Your task to perform on an android device: Open Google Image 0: 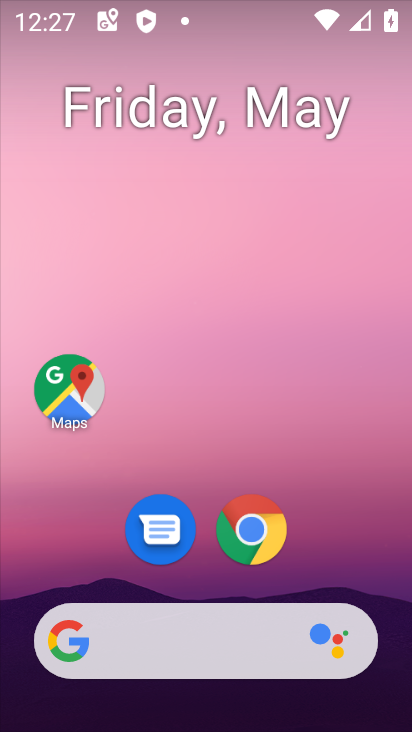
Step 0: click (211, 632)
Your task to perform on an android device: Open Google Image 1: 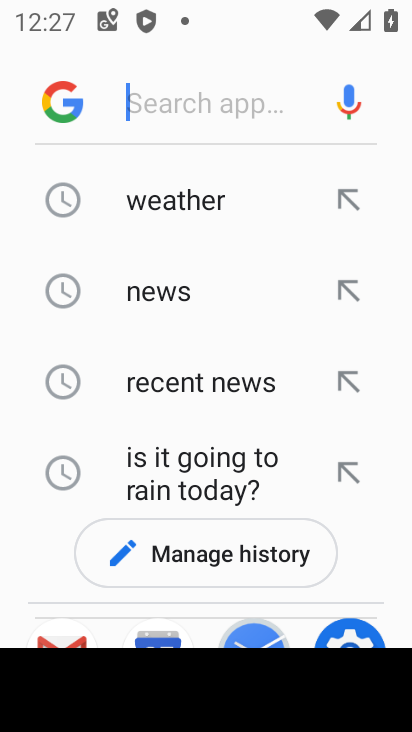
Step 1: type "google.com"
Your task to perform on an android device: Open Google Image 2: 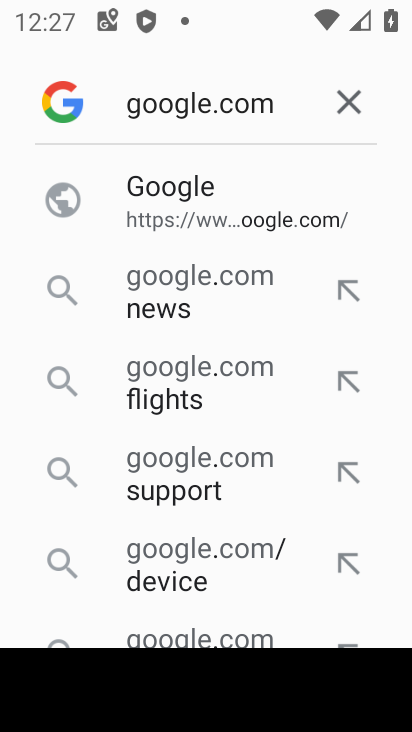
Step 2: click (207, 225)
Your task to perform on an android device: Open Google Image 3: 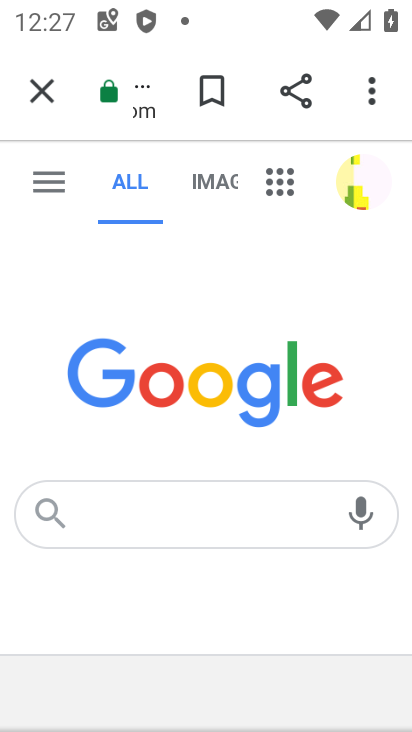
Step 3: task complete